Your task to perform on an android device: turn on translation in the chrome app Image 0: 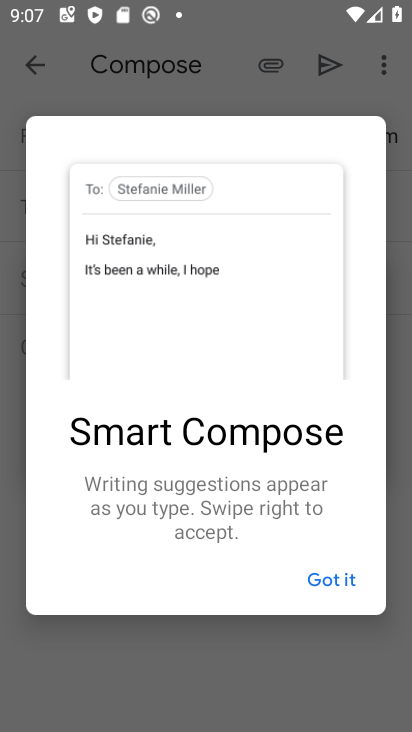
Step 0: press home button
Your task to perform on an android device: turn on translation in the chrome app Image 1: 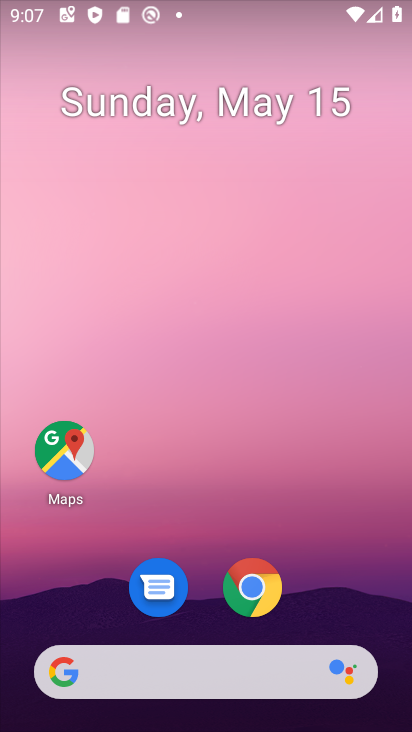
Step 1: drag from (363, 627) to (311, 191)
Your task to perform on an android device: turn on translation in the chrome app Image 2: 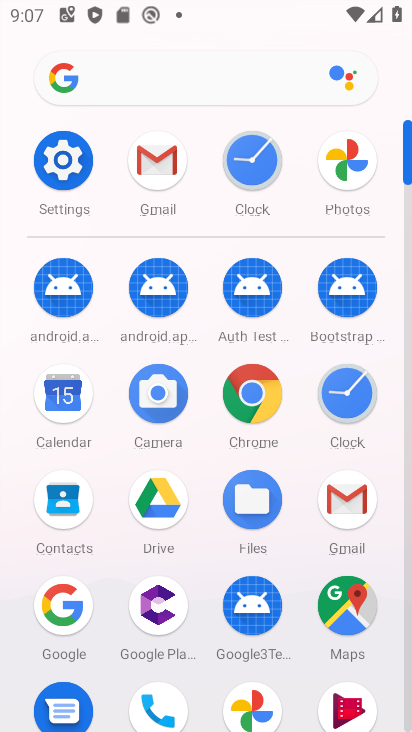
Step 2: click (258, 405)
Your task to perform on an android device: turn on translation in the chrome app Image 3: 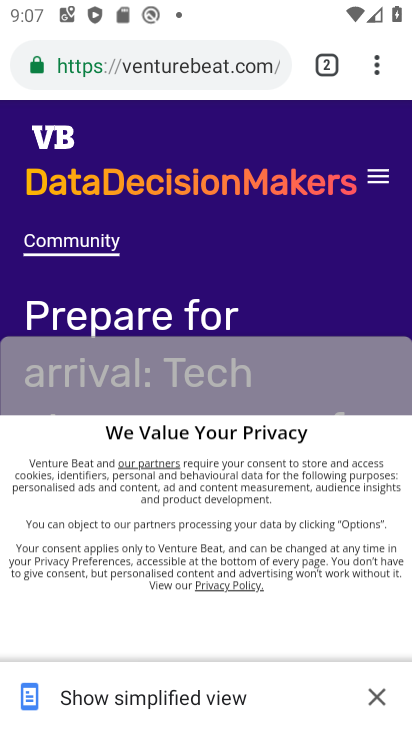
Step 3: press back button
Your task to perform on an android device: turn on translation in the chrome app Image 4: 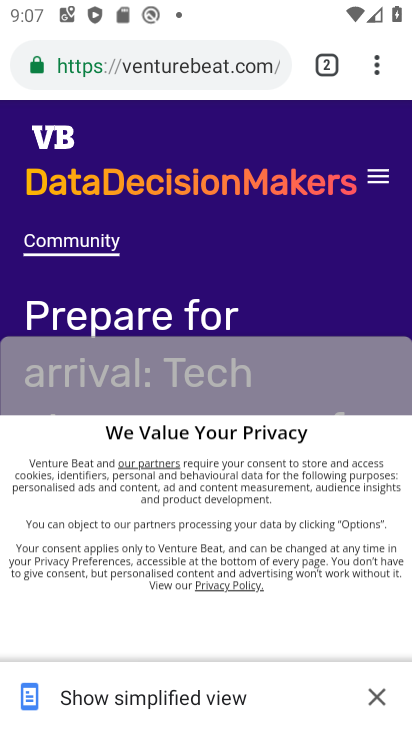
Step 4: press back button
Your task to perform on an android device: turn on translation in the chrome app Image 5: 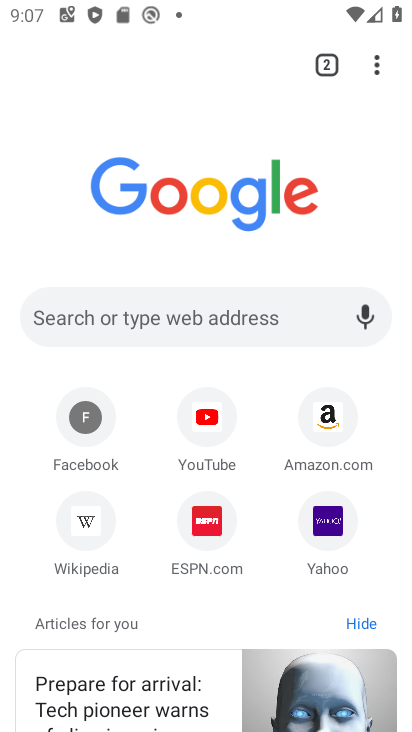
Step 5: click (376, 61)
Your task to perform on an android device: turn on translation in the chrome app Image 6: 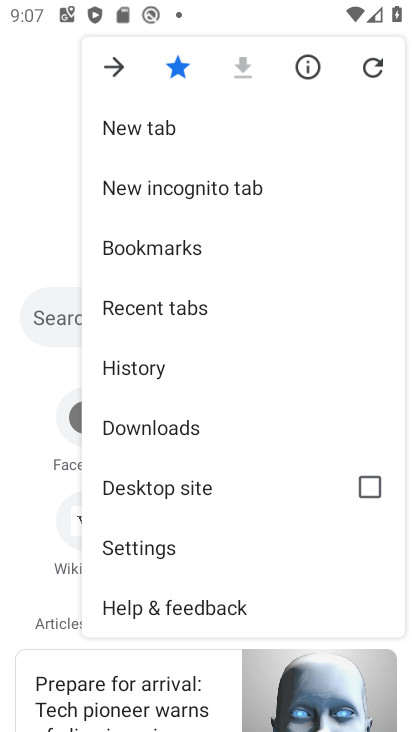
Step 6: click (205, 538)
Your task to perform on an android device: turn on translation in the chrome app Image 7: 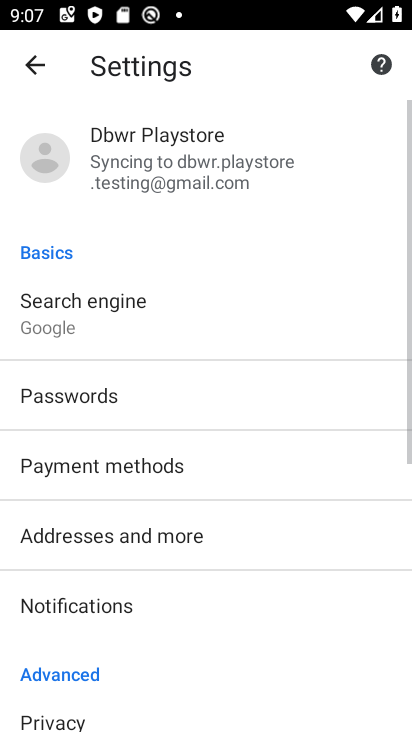
Step 7: drag from (86, 659) to (143, 154)
Your task to perform on an android device: turn on translation in the chrome app Image 8: 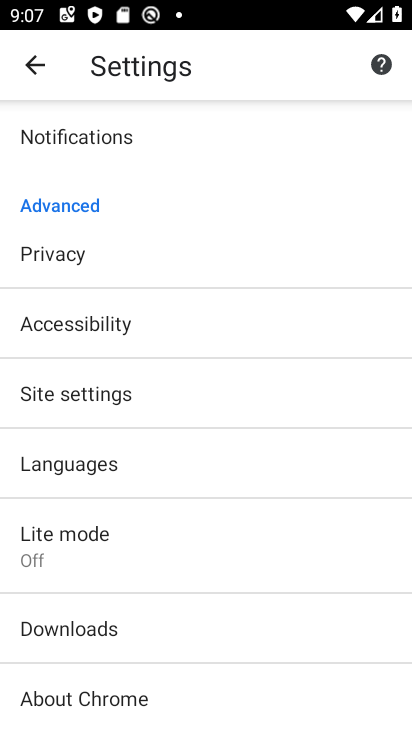
Step 8: click (161, 474)
Your task to perform on an android device: turn on translation in the chrome app Image 9: 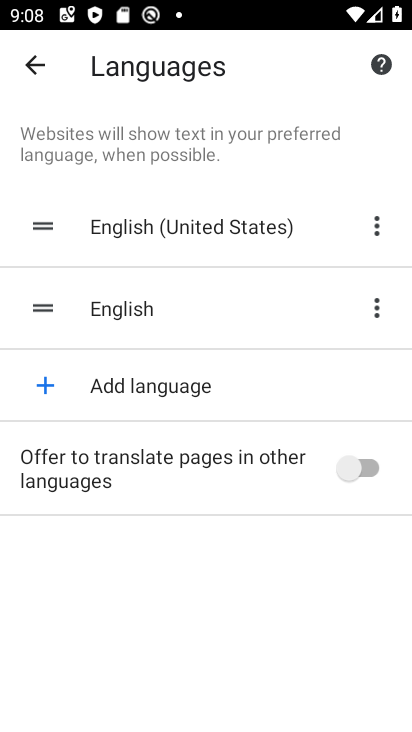
Step 9: click (257, 474)
Your task to perform on an android device: turn on translation in the chrome app Image 10: 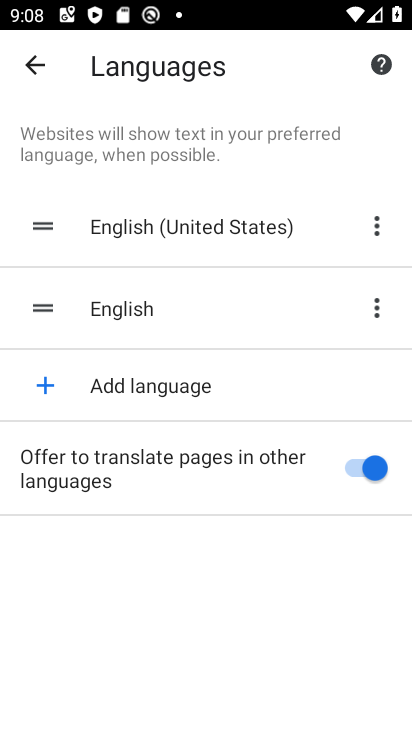
Step 10: task complete